Your task to perform on an android device: What's on my calendar tomorrow? Image 0: 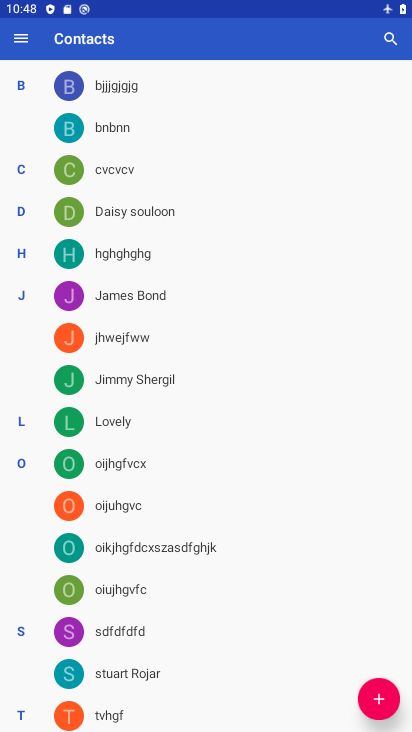
Step 0: press home button
Your task to perform on an android device: What's on my calendar tomorrow? Image 1: 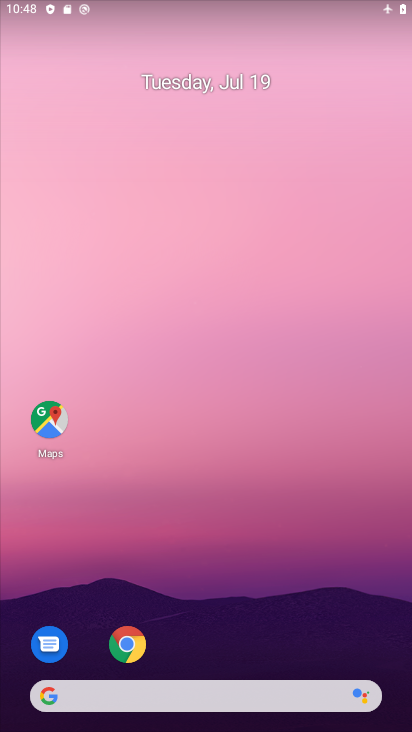
Step 1: click (283, 579)
Your task to perform on an android device: What's on my calendar tomorrow? Image 2: 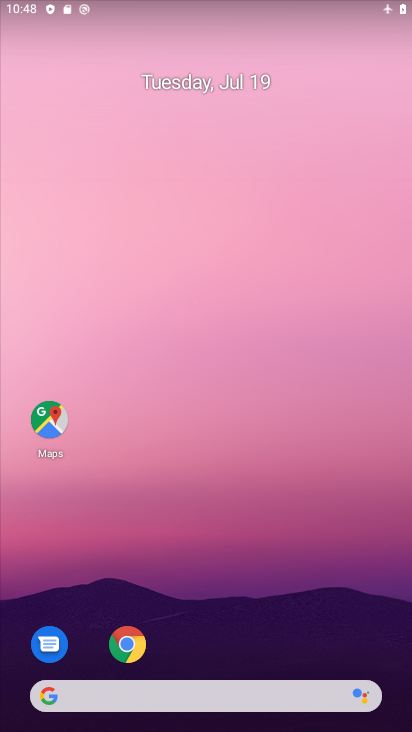
Step 2: drag from (248, 586) to (217, 82)
Your task to perform on an android device: What's on my calendar tomorrow? Image 3: 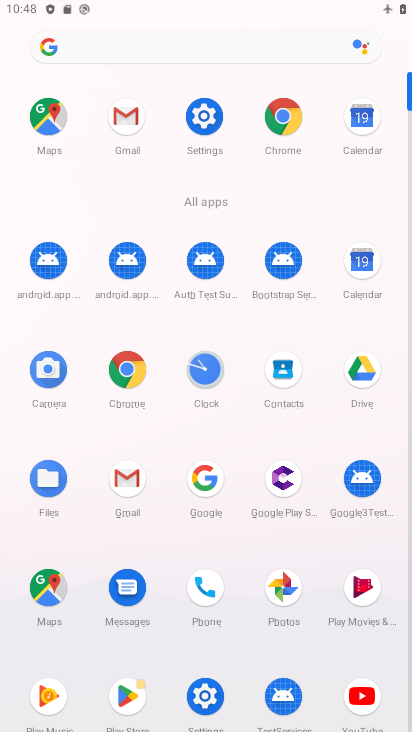
Step 3: click (349, 264)
Your task to perform on an android device: What's on my calendar tomorrow? Image 4: 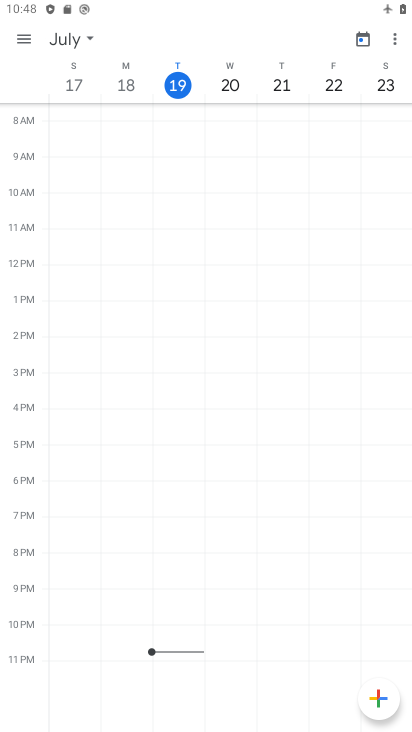
Step 4: click (232, 86)
Your task to perform on an android device: What's on my calendar tomorrow? Image 5: 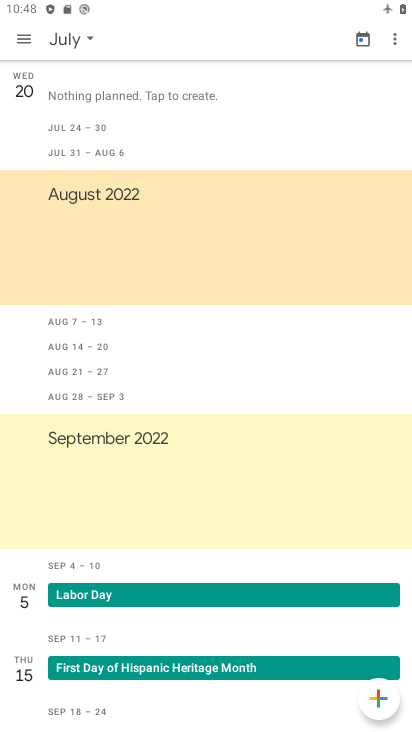
Step 5: task complete